Your task to perform on an android device: allow cookies in the chrome app Image 0: 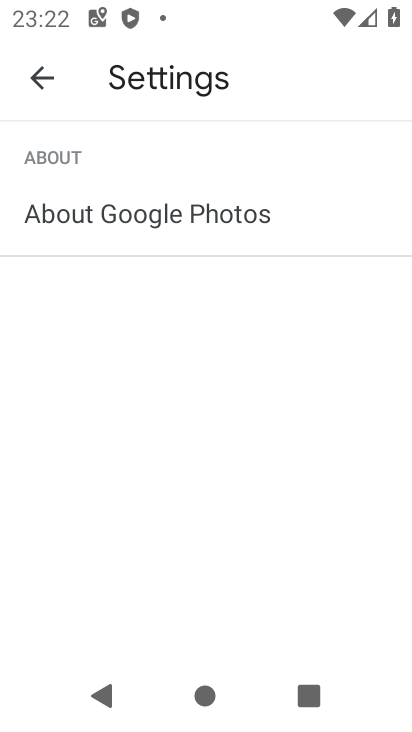
Step 0: press home button
Your task to perform on an android device: allow cookies in the chrome app Image 1: 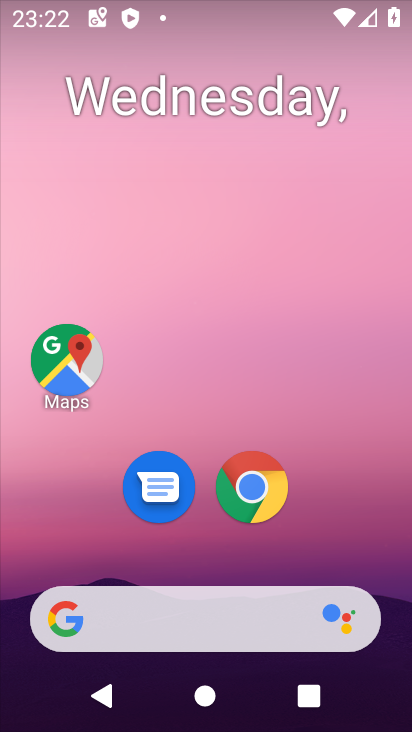
Step 1: click (252, 485)
Your task to perform on an android device: allow cookies in the chrome app Image 2: 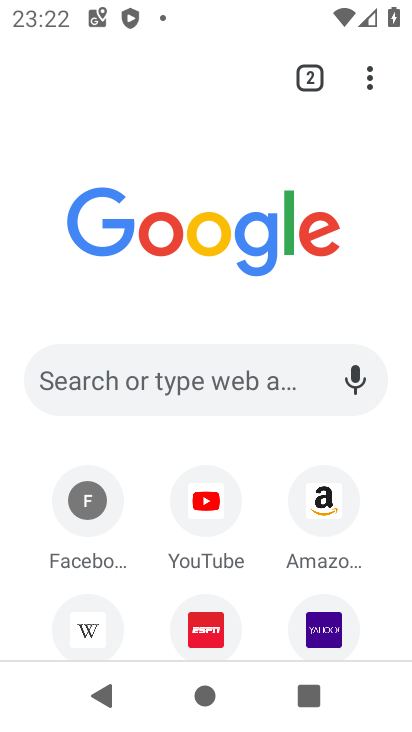
Step 2: click (370, 80)
Your task to perform on an android device: allow cookies in the chrome app Image 3: 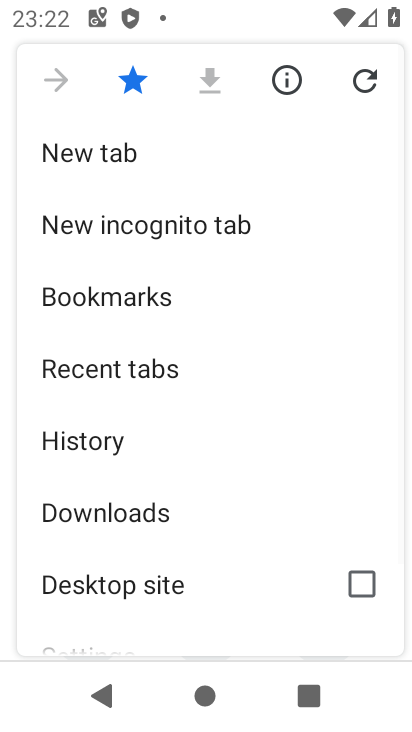
Step 3: drag from (253, 488) to (253, 160)
Your task to perform on an android device: allow cookies in the chrome app Image 4: 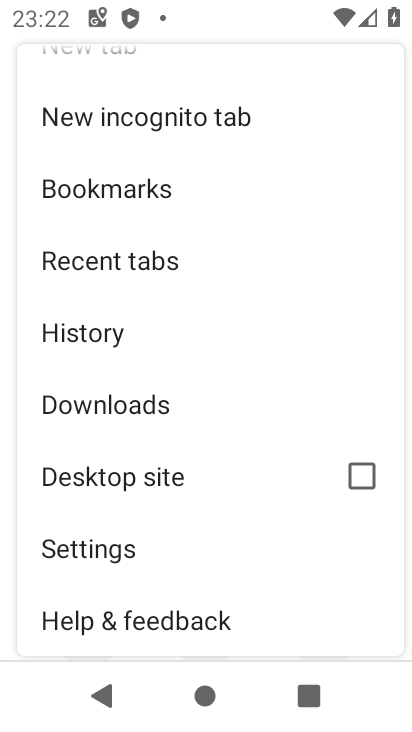
Step 4: click (85, 551)
Your task to perform on an android device: allow cookies in the chrome app Image 5: 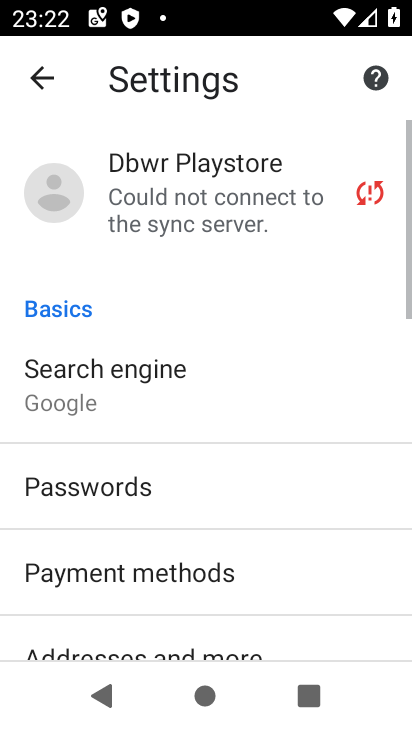
Step 5: drag from (244, 536) to (218, 126)
Your task to perform on an android device: allow cookies in the chrome app Image 6: 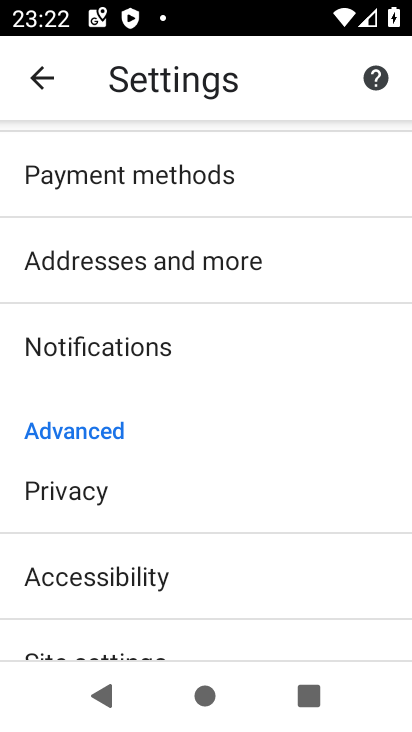
Step 6: drag from (201, 483) to (185, 184)
Your task to perform on an android device: allow cookies in the chrome app Image 7: 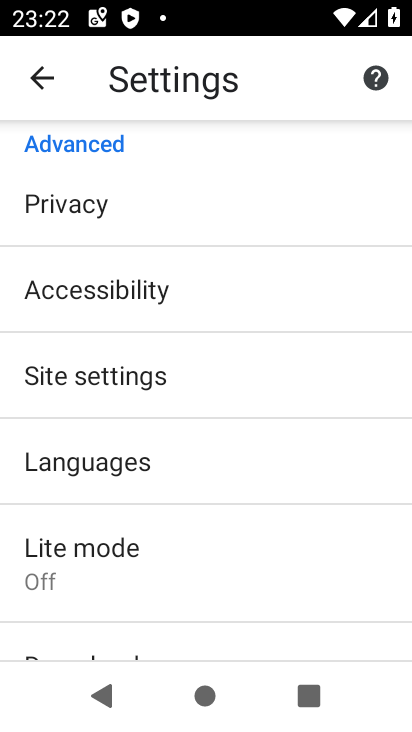
Step 7: click (89, 383)
Your task to perform on an android device: allow cookies in the chrome app Image 8: 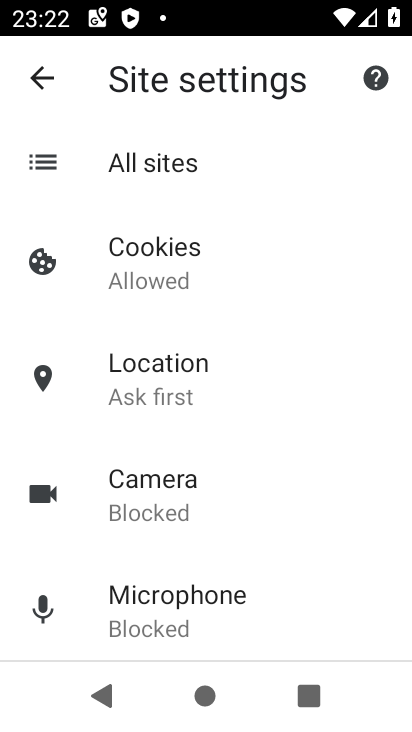
Step 8: click (127, 272)
Your task to perform on an android device: allow cookies in the chrome app Image 9: 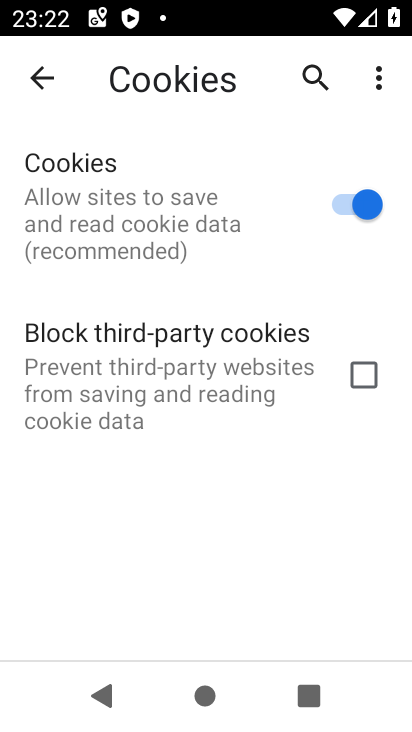
Step 9: task complete